Your task to perform on an android device: Open internet settings Image 0: 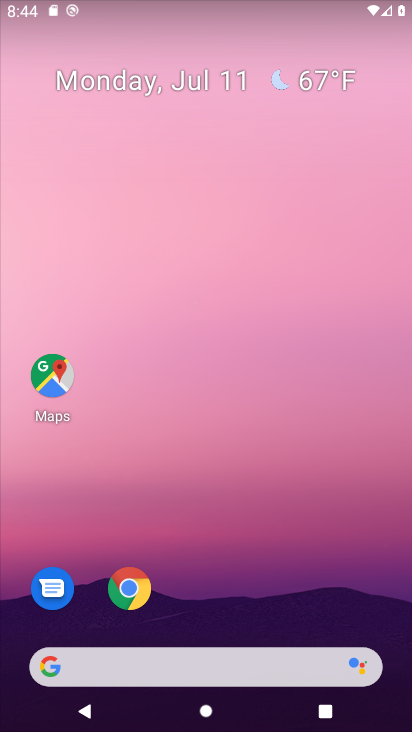
Step 0: drag from (332, 571) to (337, 0)
Your task to perform on an android device: Open internet settings Image 1: 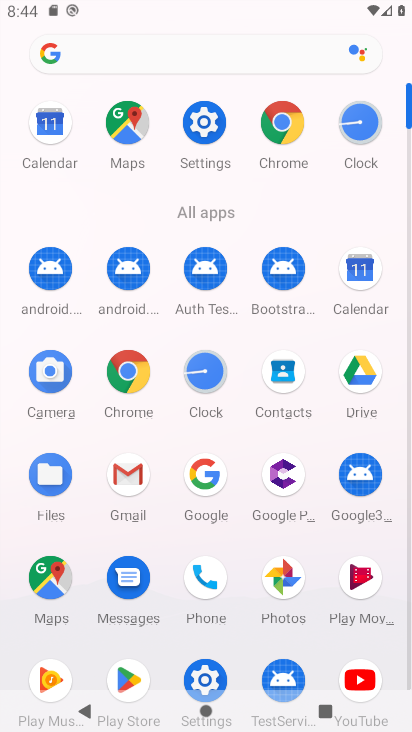
Step 1: click (210, 125)
Your task to perform on an android device: Open internet settings Image 2: 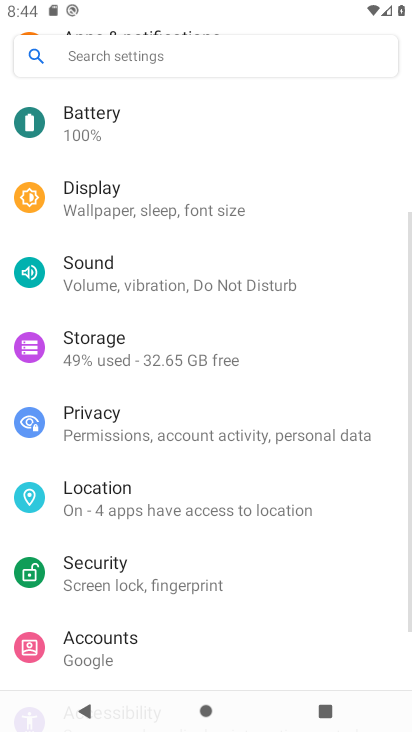
Step 2: drag from (205, 145) to (220, 329)
Your task to perform on an android device: Open internet settings Image 3: 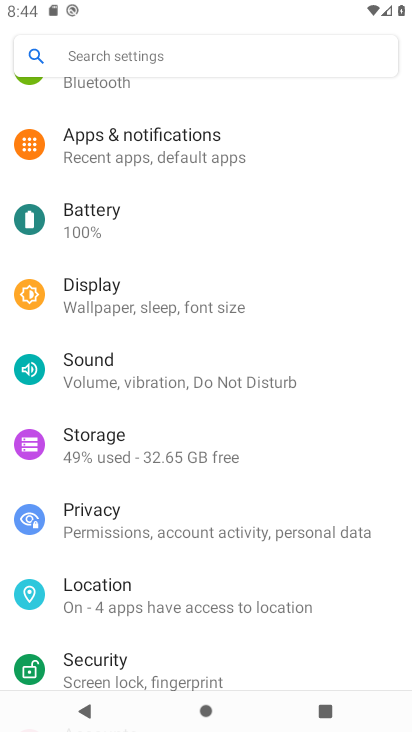
Step 3: drag from (279, 163) to (294, 353)
Your task to perform on an android device: Open internet settings Image 4: 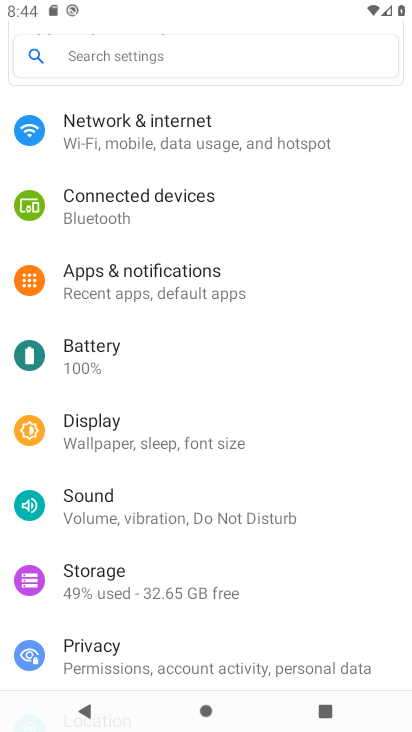
Step 4: click (254, 136)
Your task to perform on an android device: Open internet settings Image 5: 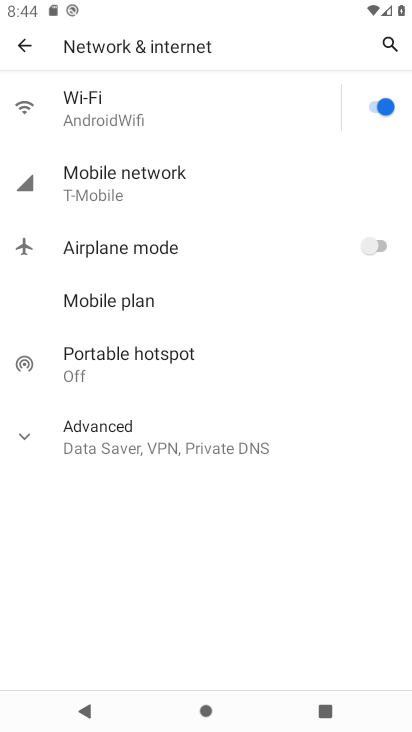
Step 5: click (175, 193)
Your task to perform on an android device: Open internet settings Image 6: 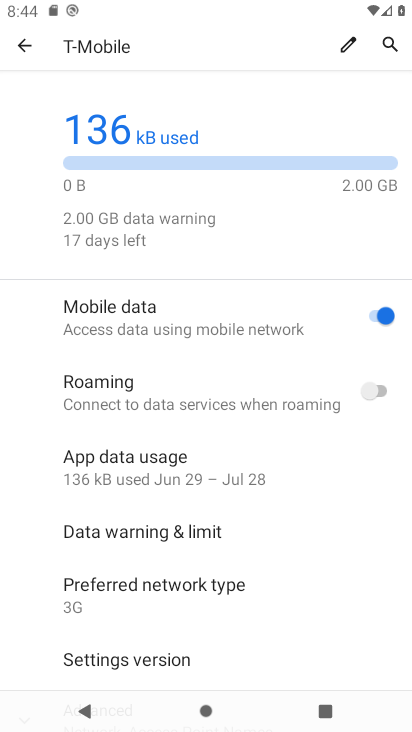
Step 6: task complete